Your task to perform on an android device: What's on my calendar today? Image 0: 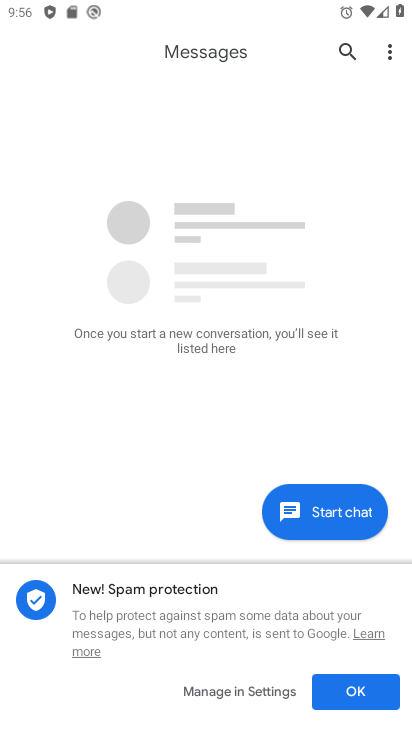
Step 0: press home button
Your task to perform on an android device: What's on my calendar today? Image 1: 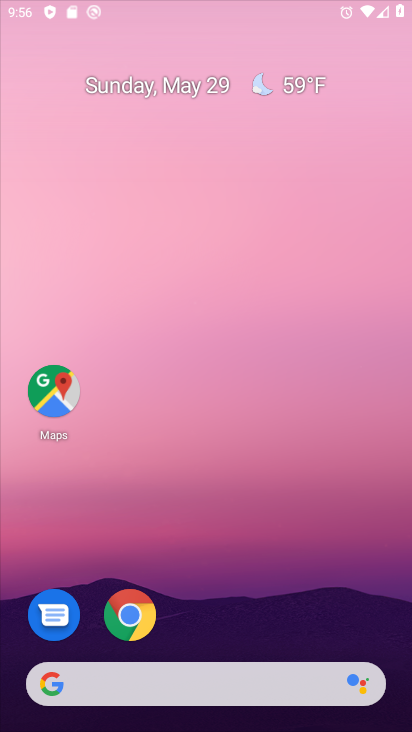
Step 1: drag from (238, 617) to (300, 108)
Your task to perform on an android device: What's on my calendar today? Image 2: 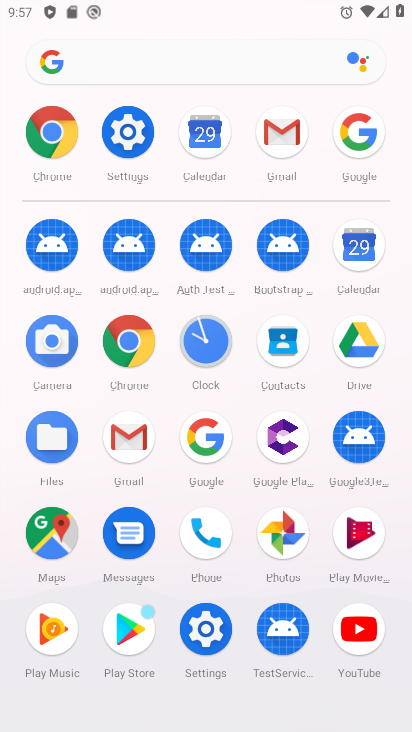
Step 2: click (351, 242)
Your task to perform on an android device: What's on my calendar today? Image 3: 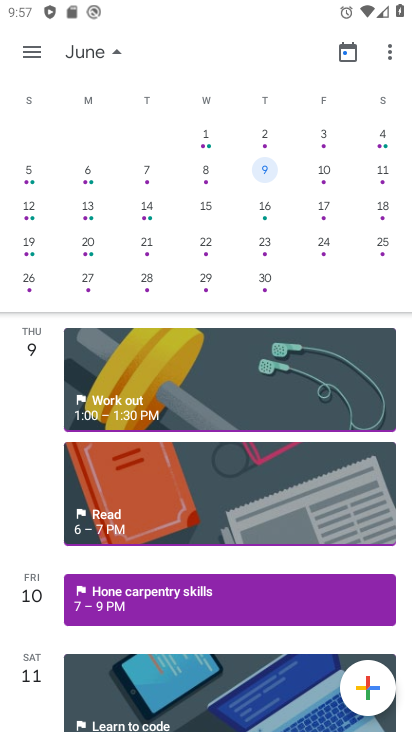
Step 3: drag from (62, 275) to (405, 282)
Your task to perform on an android device: What's on my calendar today? Image 4: 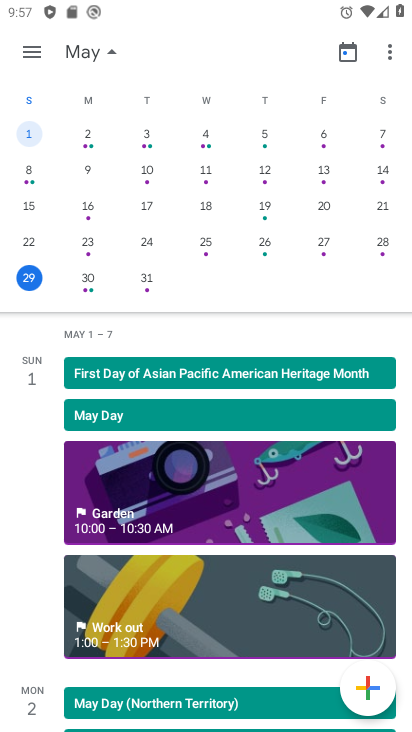
Step 4: click (27, 277)
Your task to perform on an android device: What's on my calendar today? Image 5: 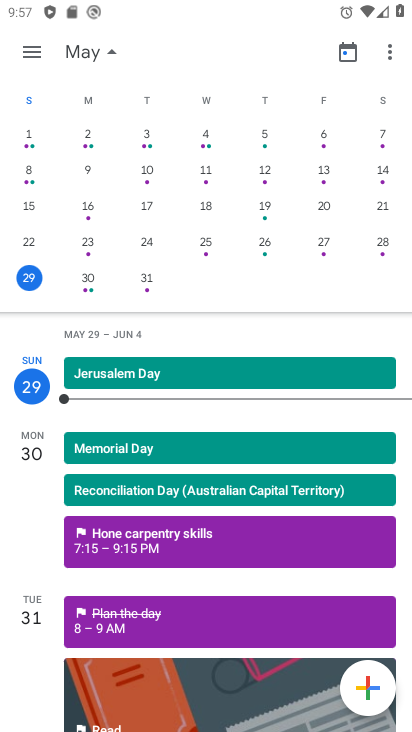
Step 5: task complete